Your task to perform on an android device: turn on location history Image 0: 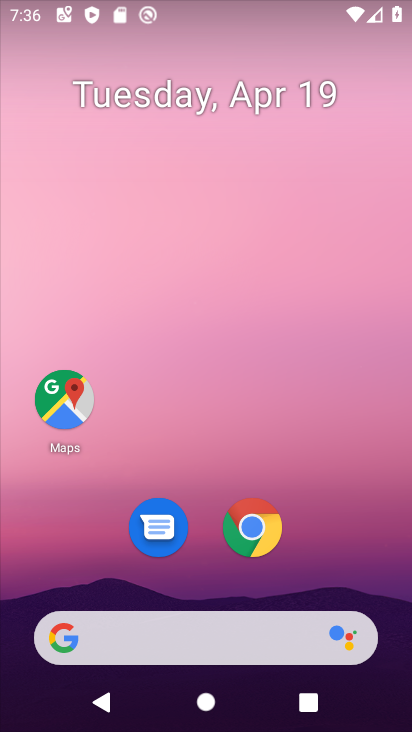
Step 0: drag from (345, 544) to (319, 174)
Your task to perform on an android device: turn on location history Image 1: 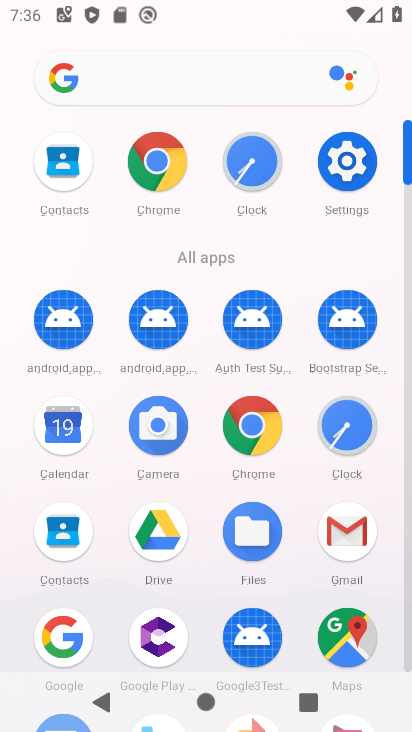
Step 1: click (345, 175)
Your task to perform on an android device: turn on location history Image 2: 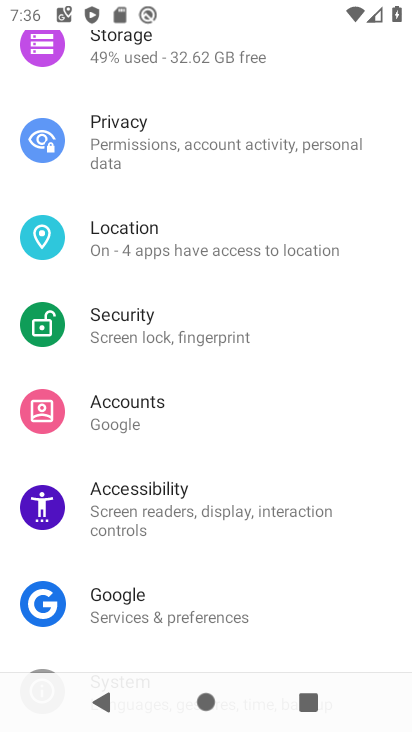
Step 2: click (165, 246)
Your task to perform on an android device: turn on location history Image 3: 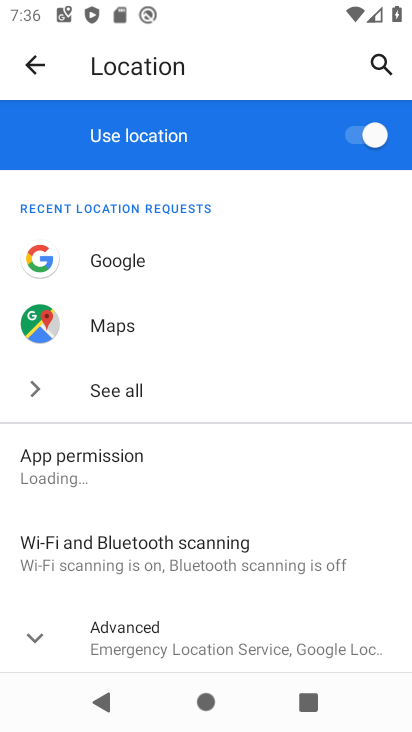
Step 3: click (212, 655)
Your task to perform on an android device: turn on location history Image 4: 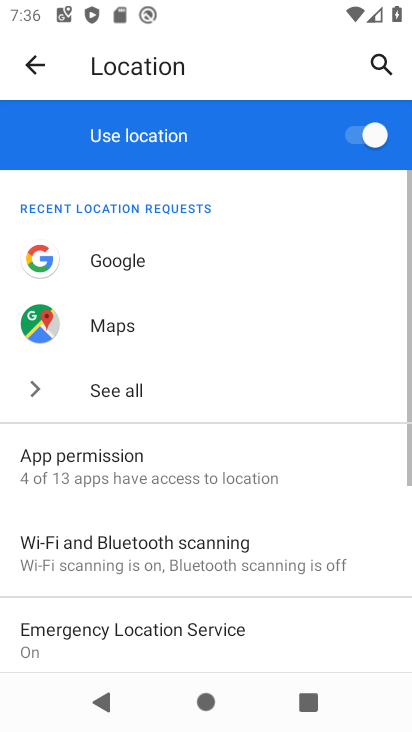
Step 4: drag from (311, 579) to (315, 295)
Your task to perform on an android device: turn on location history Image 5: 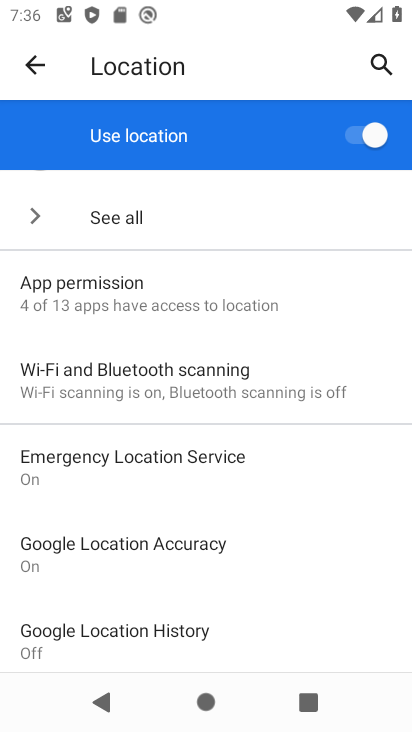
Step 5: click (164, 634)
Your task to perform on an android device: turn on location history Image 6: 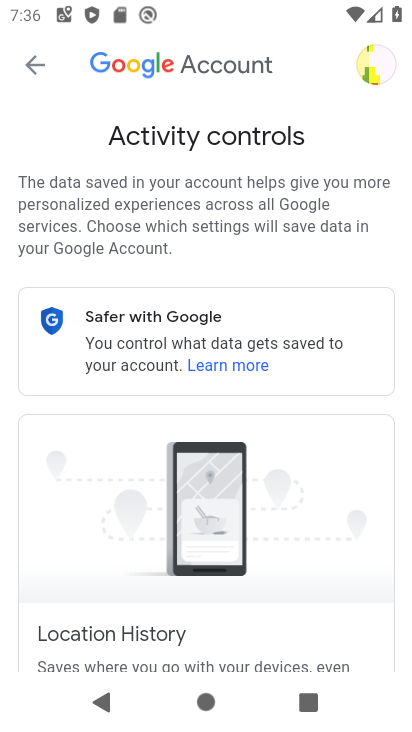
Step 6: drag from (252, 585) to (263, 256)
Your task to perform on an android device: turn on location history Image 7: 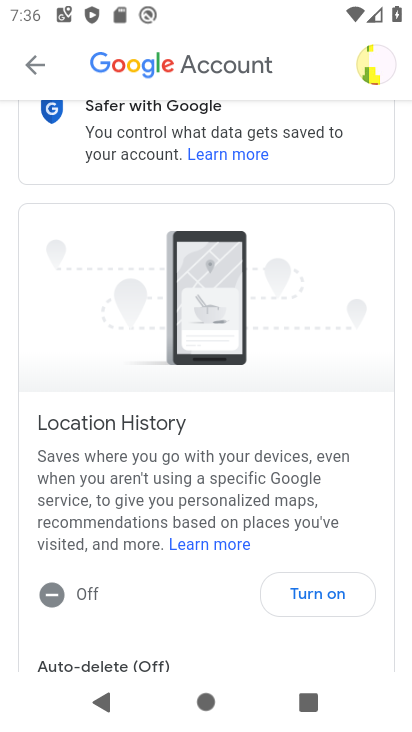
Step 7: click (350, 596)
Your task to perform on an android device: turn on location history Image 8: 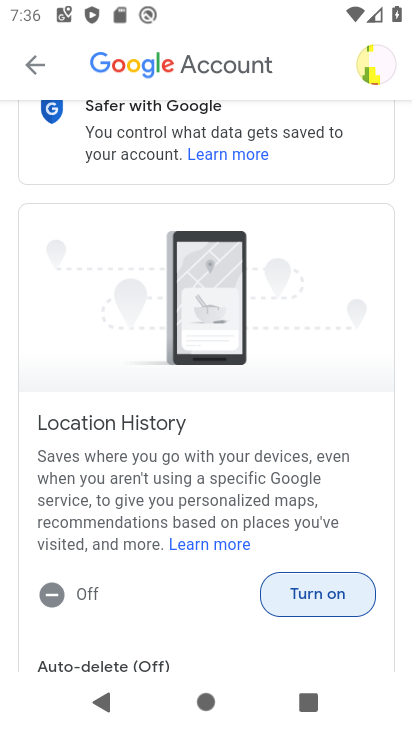
Step 8: click (328, 590)
Your task to perform on an android device: turn on location history Image 9: 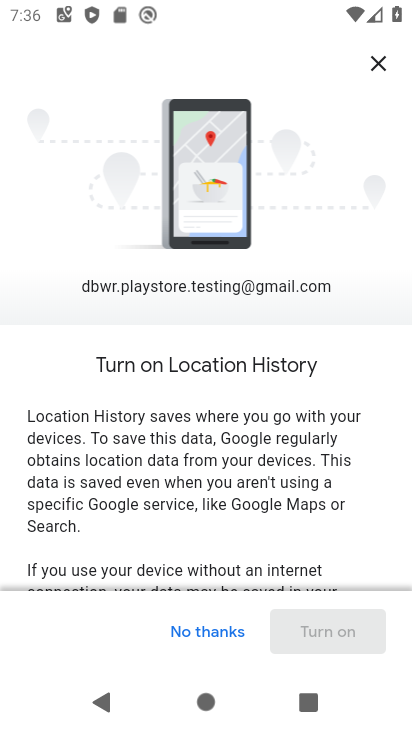
Step 9: drag from (322, 534) to (341, 222)
Your task to perform on an android device: turn on location history Image 10: 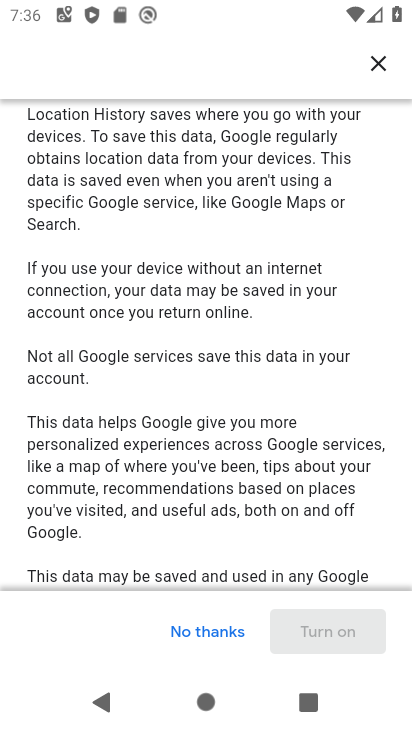
Step 10: drag from (339, 497) to (337, 262)
Your task to perform on an android device: turn on location history Image 11: 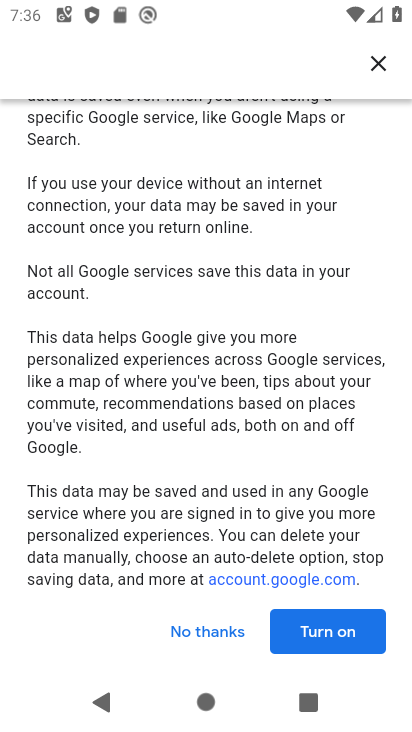
Step 11: click (347, 626)
Your task to perform on an android device: turn on location history Image 12: 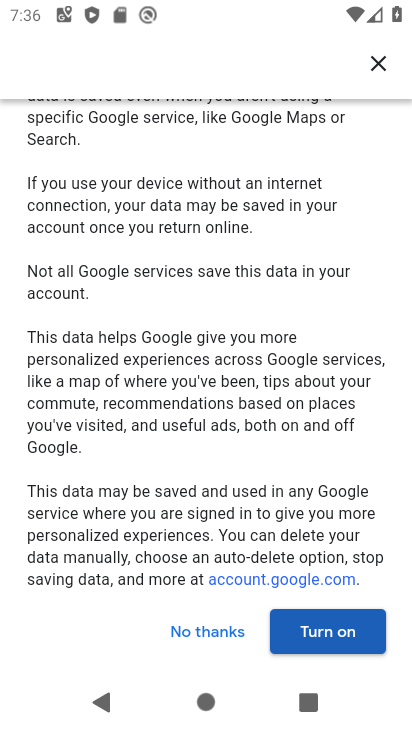
Step 12: click (342, 637)
Your task to perform on an android device: turn on location history Image 13: 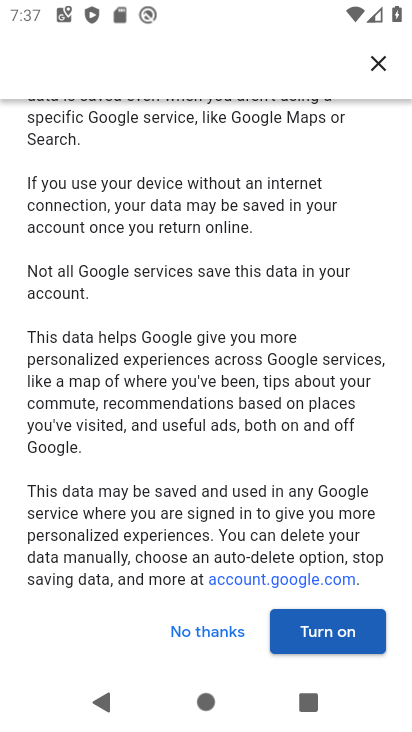
Step 13: drag from (330, 564) to (319, 368)
Your task to perform on an android device: turn on location history Image 14: 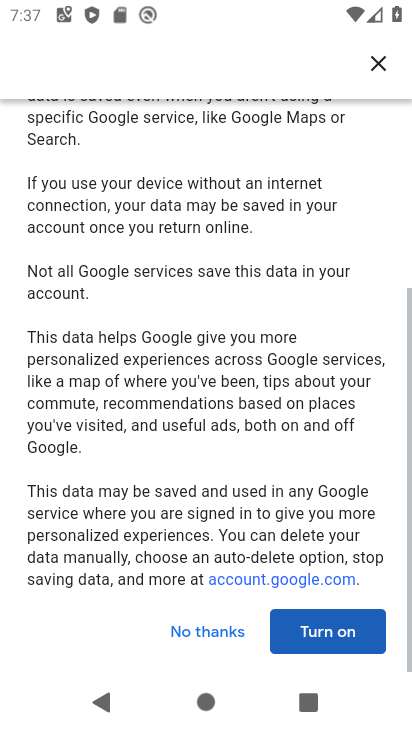
Step 14: click (294, 626)
Your task to perform on an android device: turn on location history Image 15: 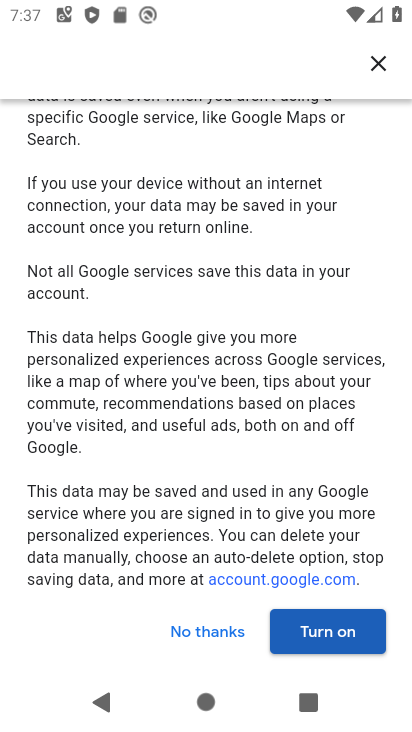
Step 15: click (319, 631)
Your task to perform on an android device: turn on location history Image 16: 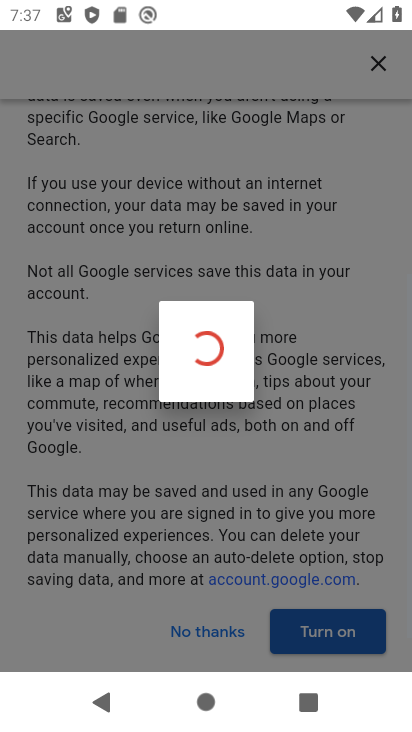
Step 16: click (319, 631)
Your task to perform on an android device: turn on location history Image 17: 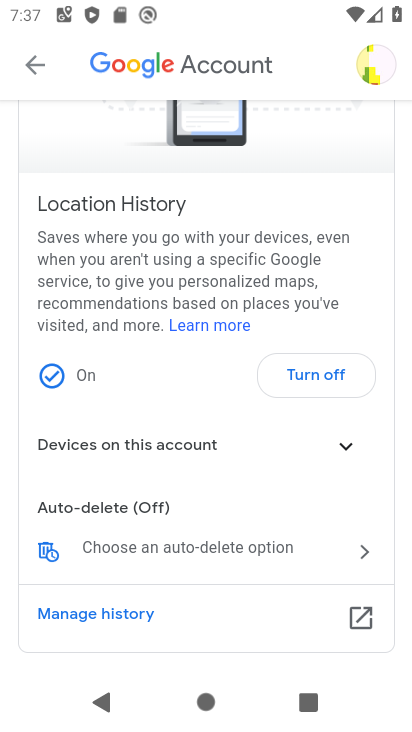
Step 17: task complete